Your task to perform on an android device: Open the map Image 0: 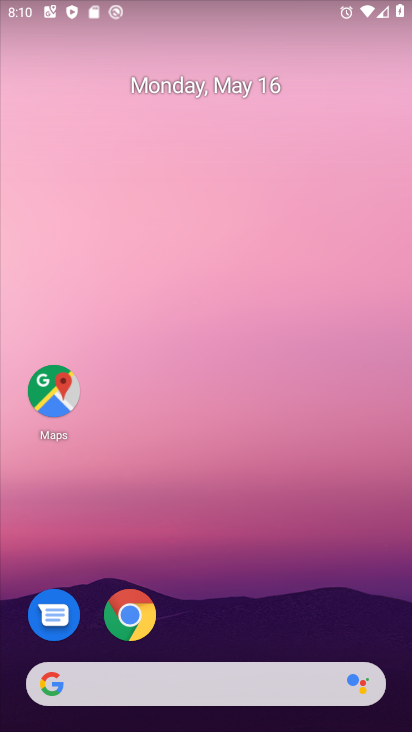
Step 0: click (77, 378)
Your task to perform on an android device: Open the map Image 1: 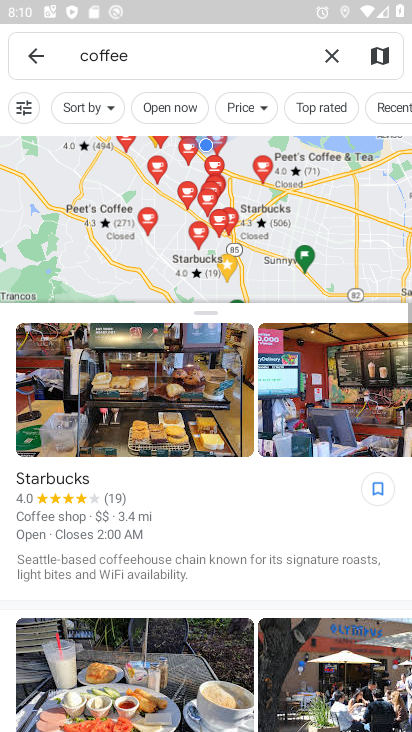
Step 1: task complete